Your task to perform on an android device: add a contact in the contacts app Image 0: 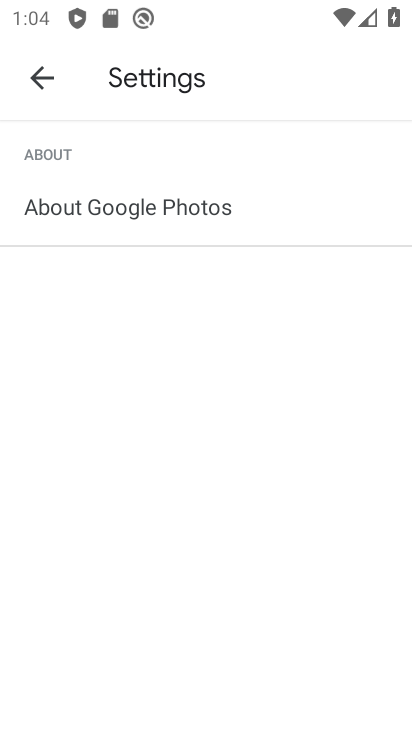
Step 0: press home button
Your task to perform on an android device: add a contact in the contacts app Image 1: 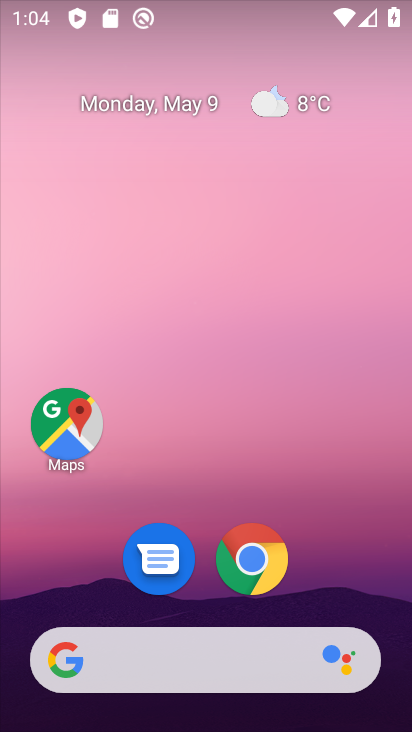
Step 1: drag from (341, 578) to (223, 112)
Your task to perform on an android device: add a contact in the contacts app Image 2: 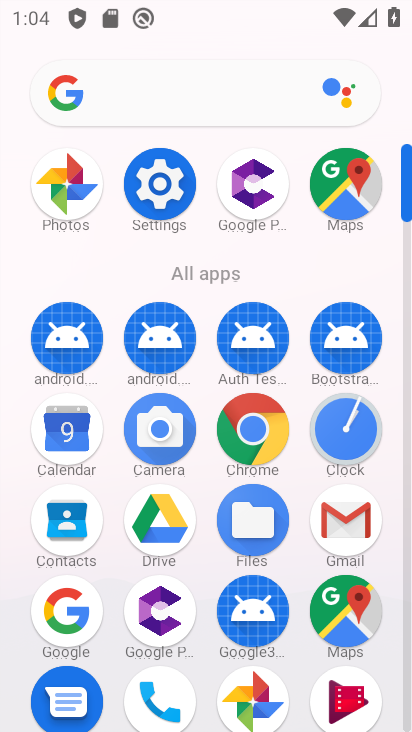
Step 2: click (59, 529)
Your task to perform on an android device: add a contact in the contacts app Image 3: 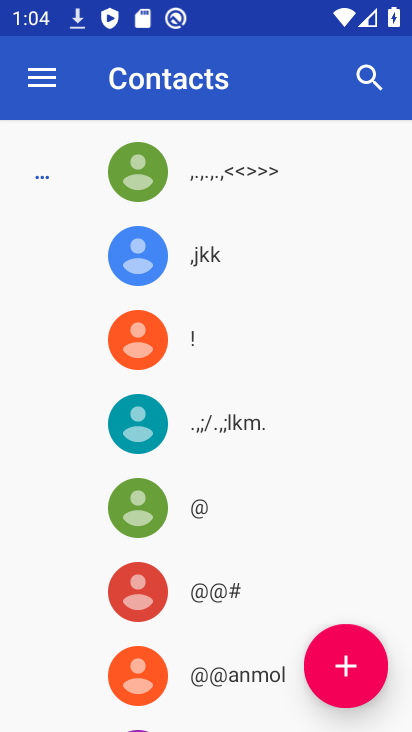
Step 3: click (334, 662)
Your task to perform on an android device: add a contact in the contacts app Image 4: 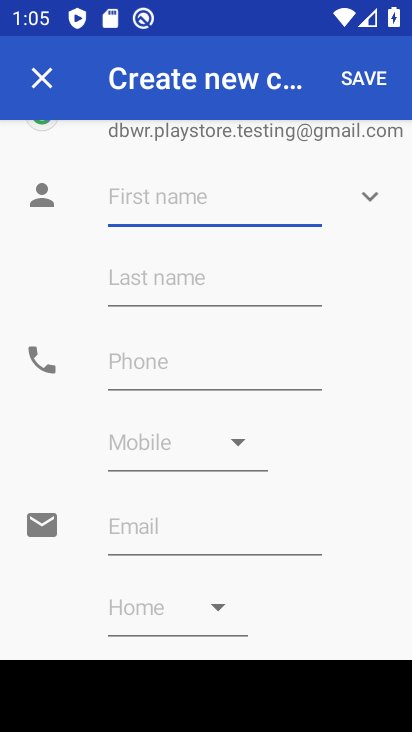
Step 4: type "rutyuiogcfv"
Your task to perform on an android device: add a contact in the contacts app Image 5: 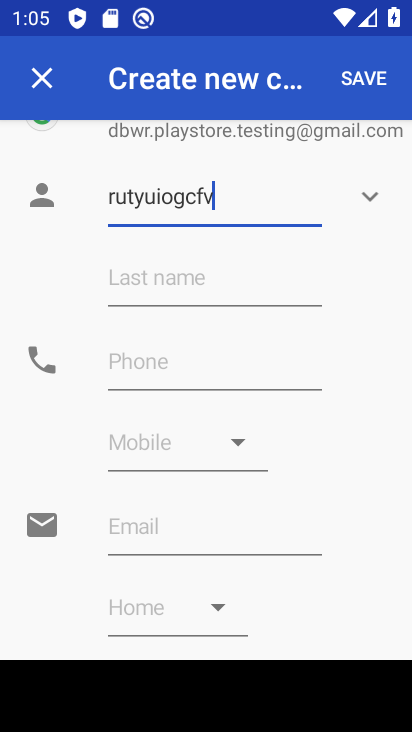
Step 5: click (198, 359)
Your task to perform on an android device: add a contact in the contacts app Image 6: 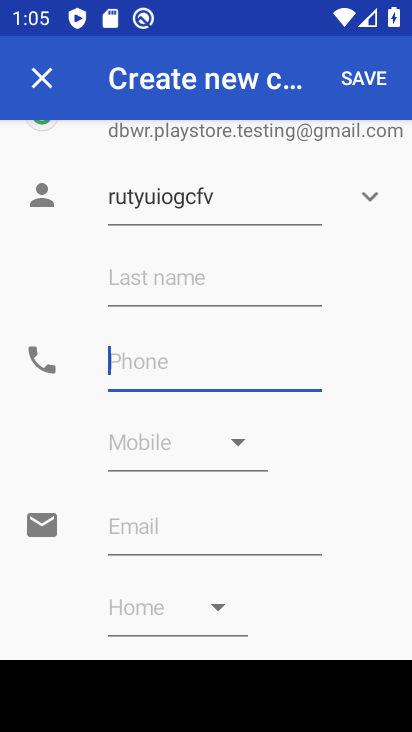
Step 6: type "00000000088"
Your task to perform on an android device: add a contact in the contacts app Image 7: 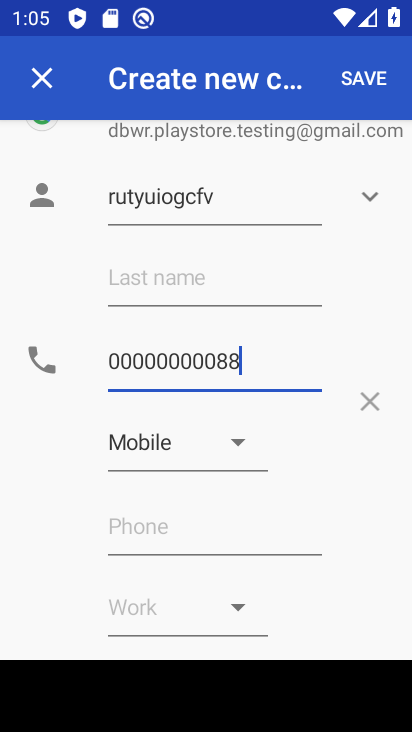
Step 7: click (368, 81)
Your task to perform on an android device: add a contact in the contacts app Image 8: 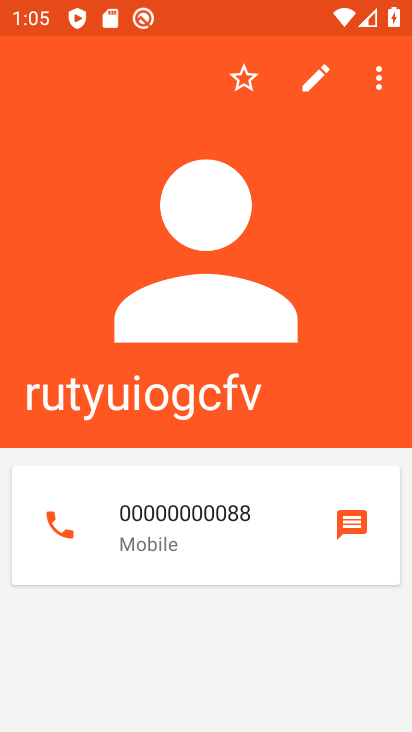
Step 8: task complete